Your task to perform on an android device: open app "Nova Launcher" (install if not already installed) Image 0: 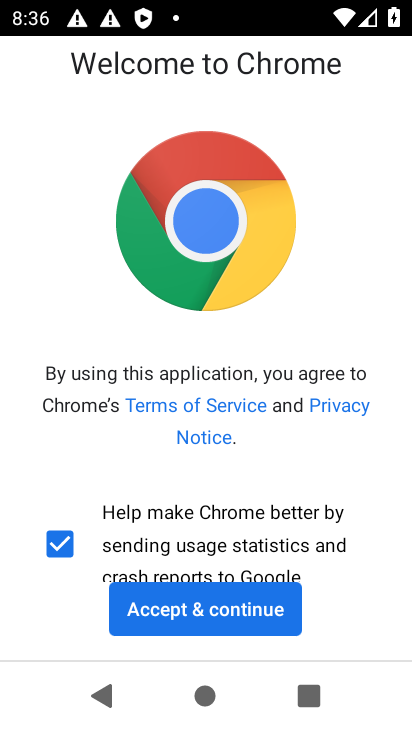
Step 0: press home button
Your task to perform on an android device: open app "Nova Launcher" (install if not already installed) Image 1: 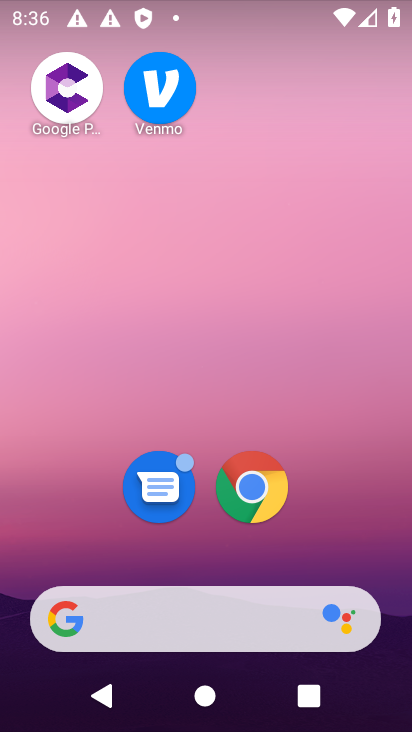
Step 1: drag from (207, 502) to (261, 27)
Your task to perform on an android device: open app "Nova Launcher" (install if not already installed) Image 2: 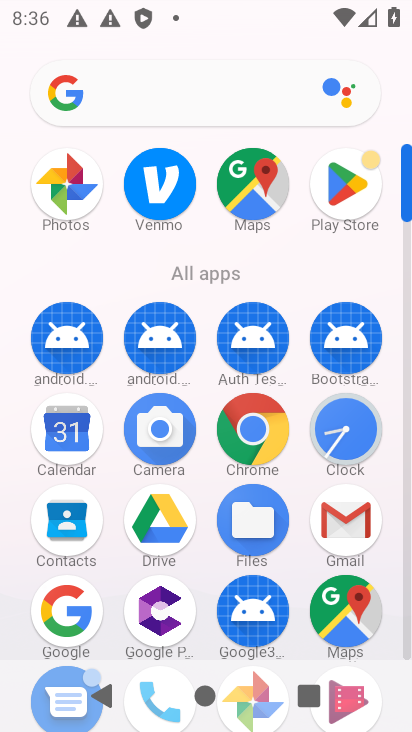
Step 2: click (343, 191)
Your task to perform on an android device: open app "Nova Launcher" (install if not already installed) Image 3: 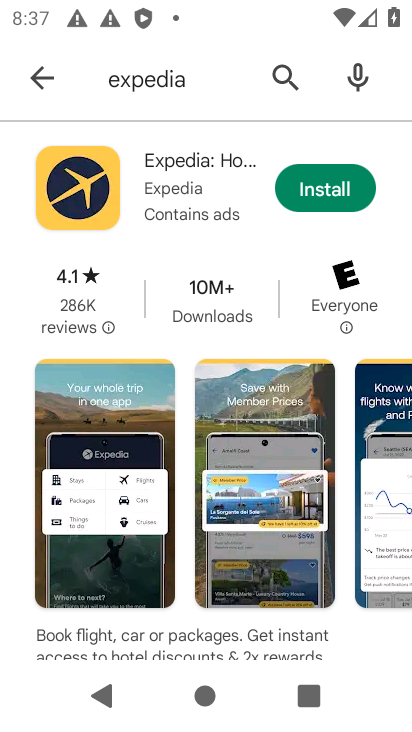
Step 3: click (292, 72)
Your task to perform on an android device: open app "Nova Launcher" (install if not already installed) Image 4: 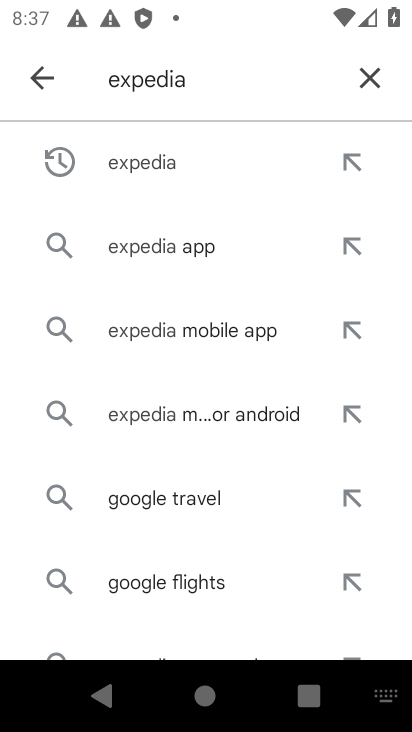
Step 4: click (374, 79)
Your task to perform on an android device: open app "Nova Launcher" (install if not already installed) Image 5: 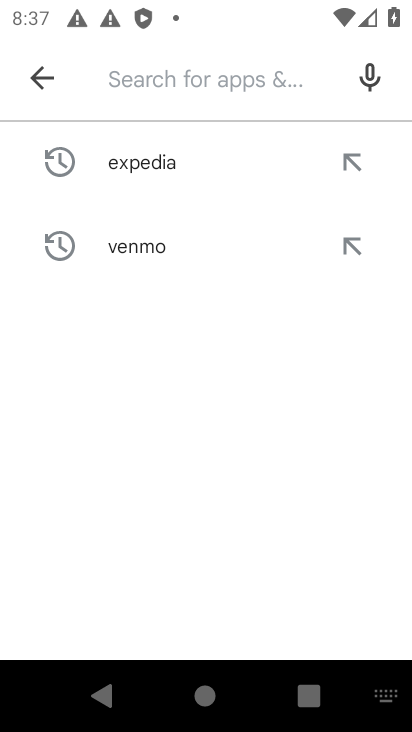
Step 5: type "nova launcher"
Your task to perform on an android device: open app "Nova Launcher" (install if not already installed) Image 6: 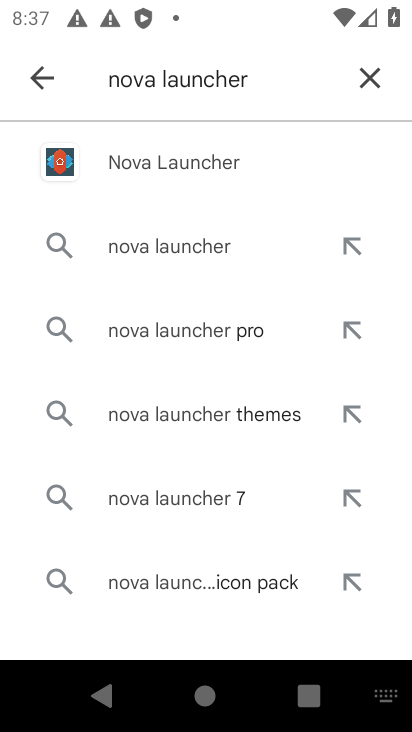
Step 6: click (186, 168)
Your task to perform on an android device: open app "Nova Launcher" (install if not already installed) Image 7: 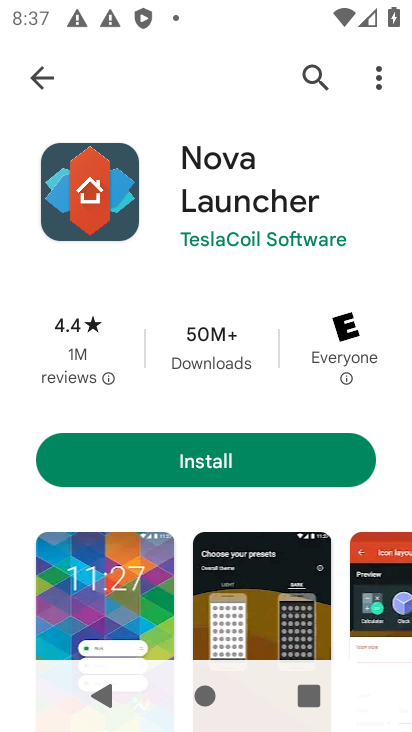
Step 7: click (207, 452)
Your task to perform on an android device: open app "Nova Launcher" (install if not already installed) Image 8: 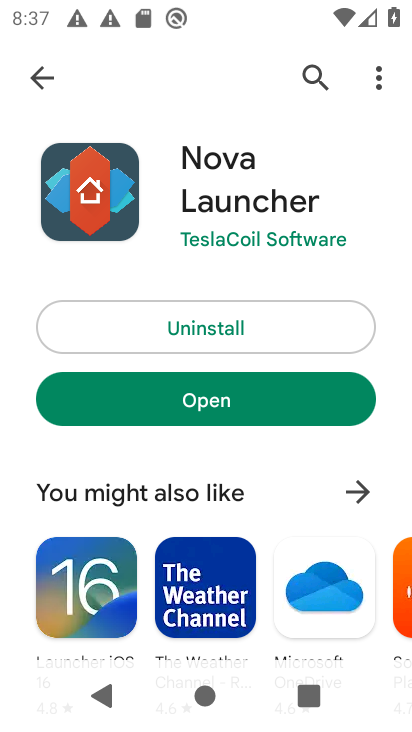
Step 8: click (177, 393)
Your task to perform on an android device: open app "Nova Launcher" (install if not already installed) Image 9: 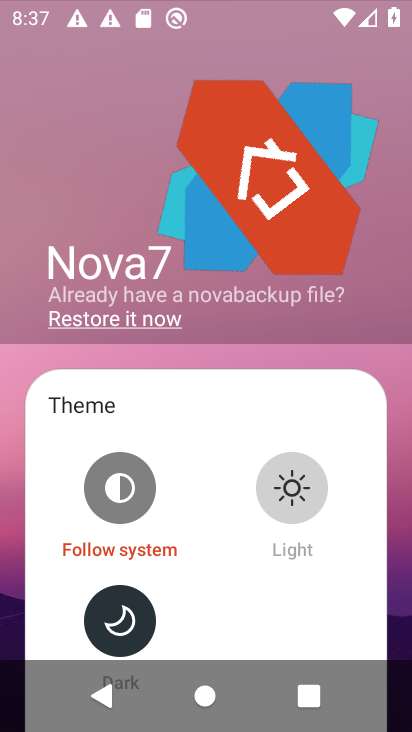
Step 9: task complete